Your task to perform on an android device: change notifications settings Image 0: 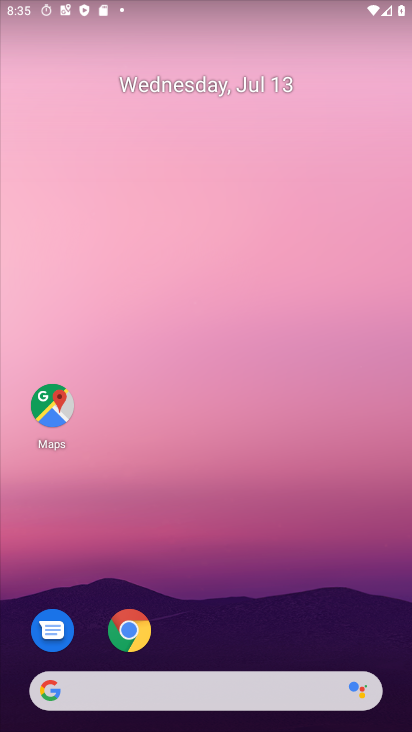
Step 0: drag from (197, 596) to (263, 172)
Your task to perform on an android device: change notifications settings Image 1: 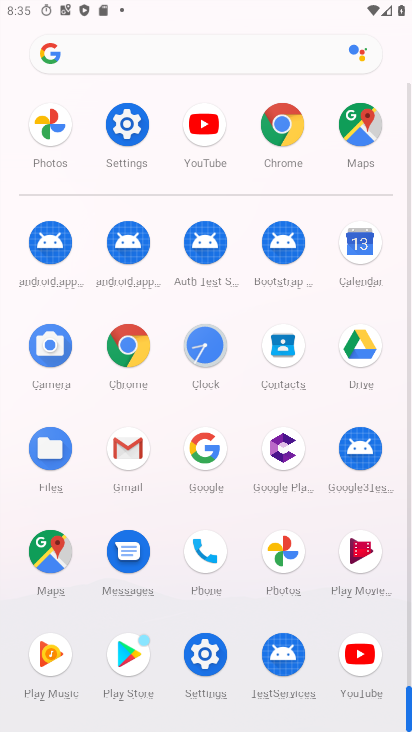
Step 1: click (198, 661)
Your task to perform on an android device: change notifications settings Image 2: 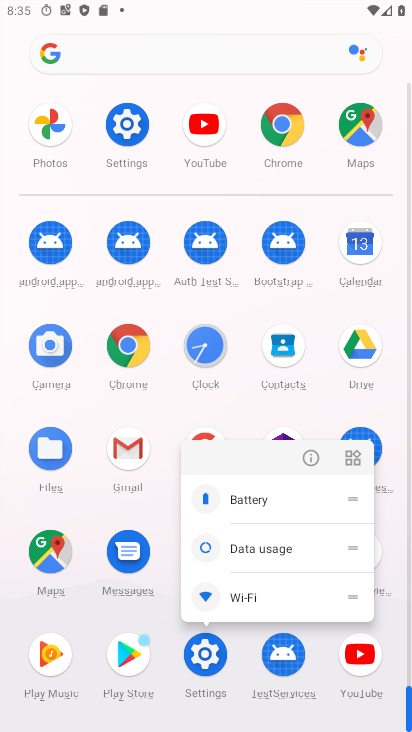
Step 2: click (313, 460)
Your task to perform on an android device: change notifications settings Image 3: 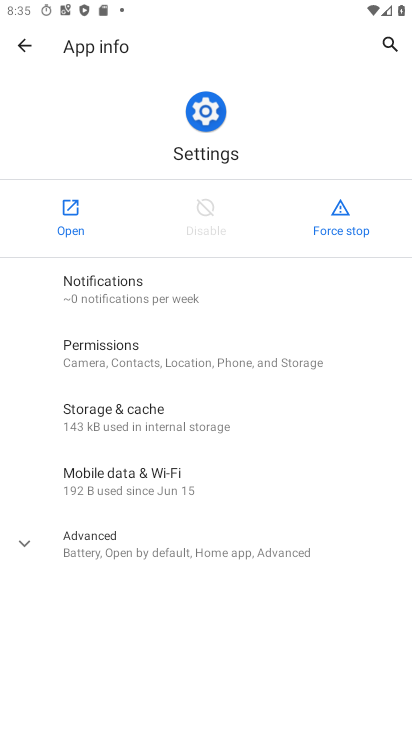
Step 3: click (150, 288)
Your task to perform on an android device: change notifications settings Image 4: 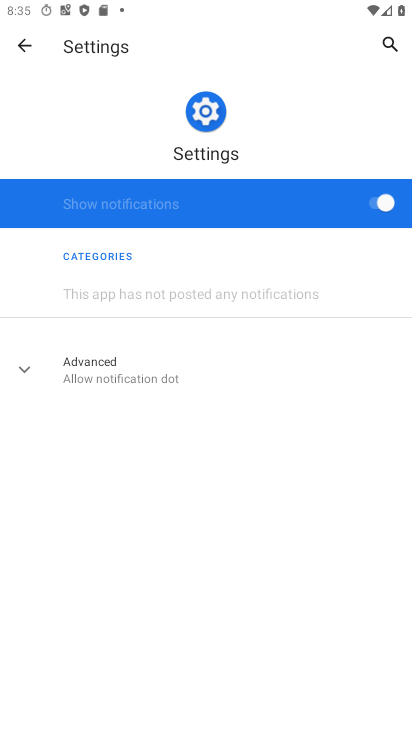
Step 4: click (371, 215)
Your task to perform on an android device: change notifications settings Image 5: 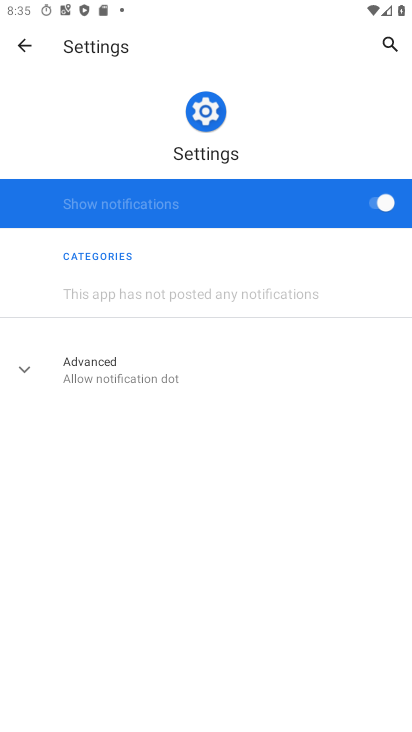
Step 5: task complete